Your task to perform on an android device: What's the weather going to be this weekend? Image 0: 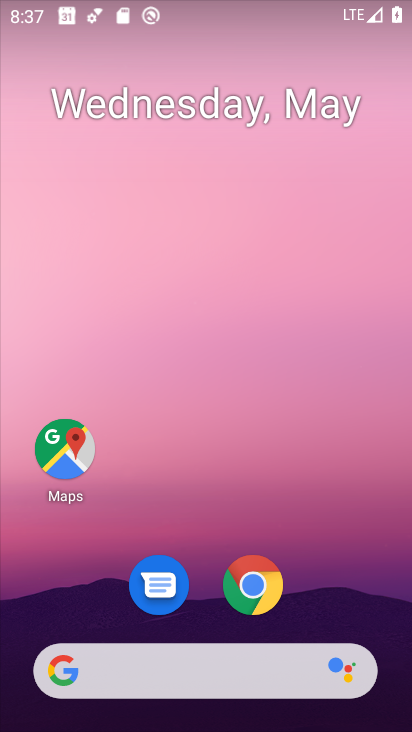
Step 0: click (225, 675)
Your task to perform on an android device: What's the weather going to be this weekend? Image 1: 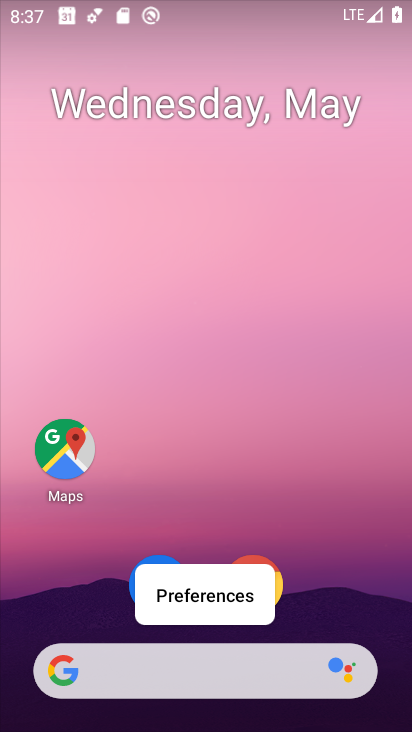
Step 1: click (64, 667)
Your task to perform on an android device: What's the weather going to be this weekend? Image 2: 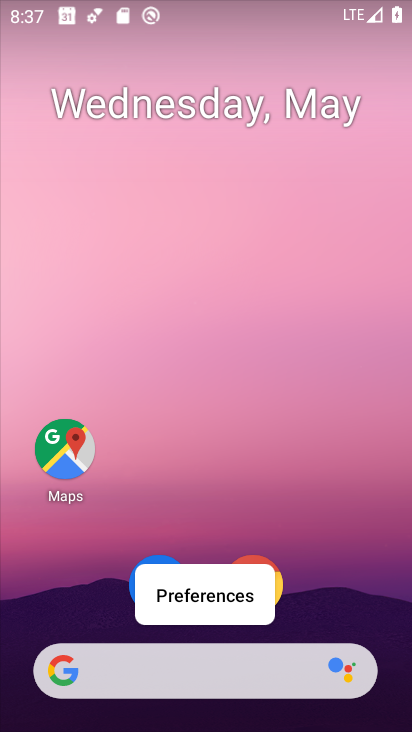
Step 2: click (109, 672)
Your task to perform on an android device: What's the weather going to be this weekend? Image 3: 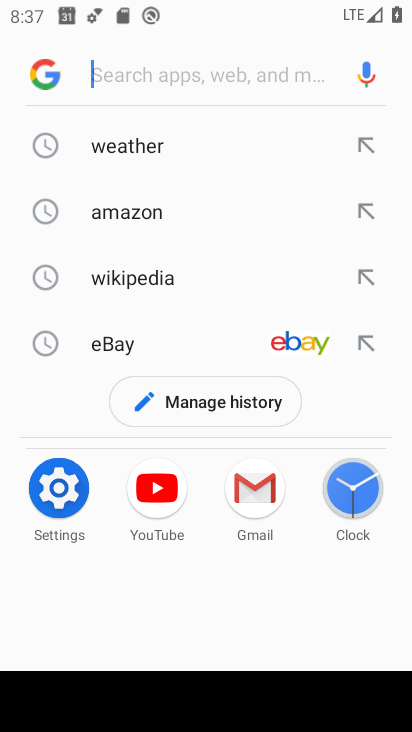
Step 3: click (87, 142)
Your task to perform on an android device: What's the weather going to be this weekend? Image 4: 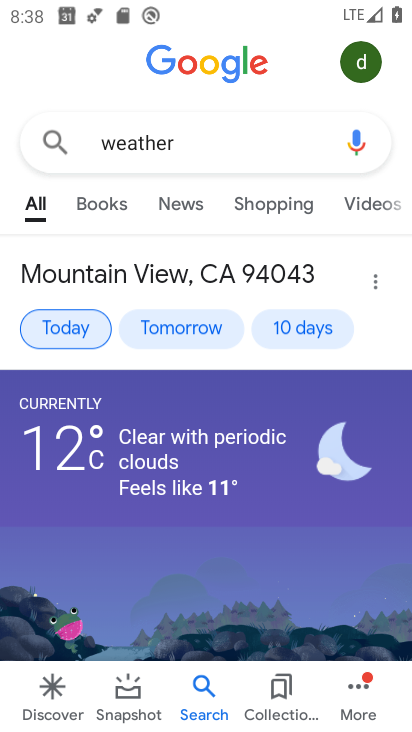
Step 4: click (87, 328)
Your task to perform on an android device: What's the weather going to be this weekend? Image 5: 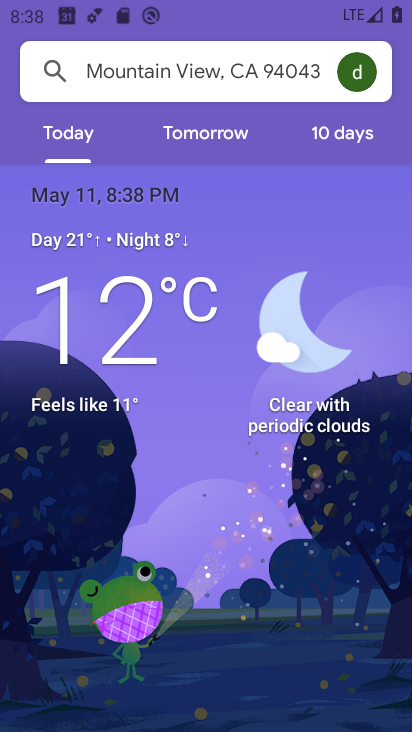
Step 5: click (215, 131)
Your task to perform on an android device: What's the weather going to be this weekend? Image 6: 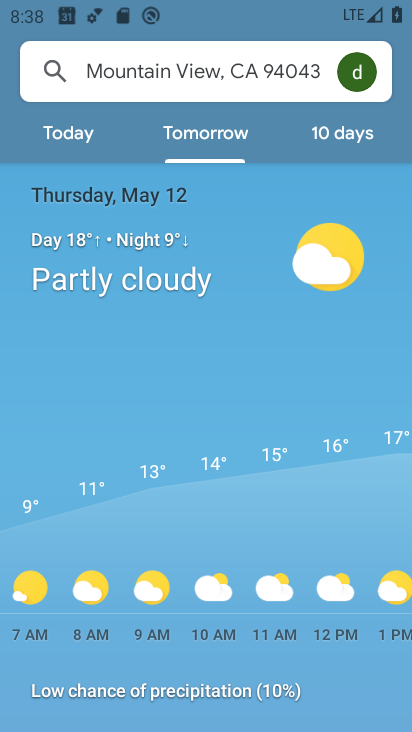
Step 6: click (342, 133)
Your task to perform on an android device: What's the weather going to be this weekend? Image 7: 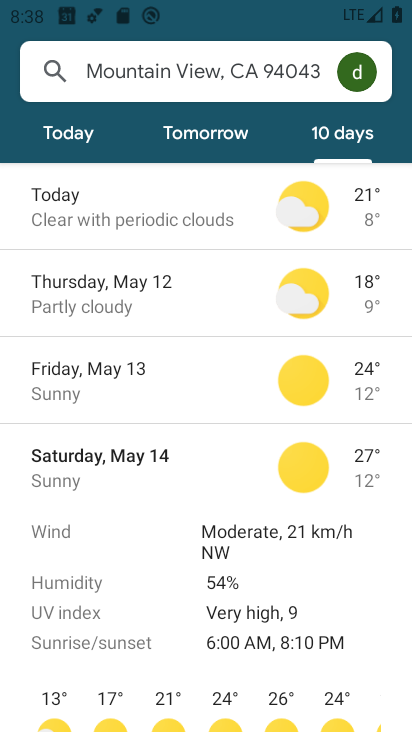
Step 7: task complete